Your task to perform on an android device: open device folders in google photos Image 0: 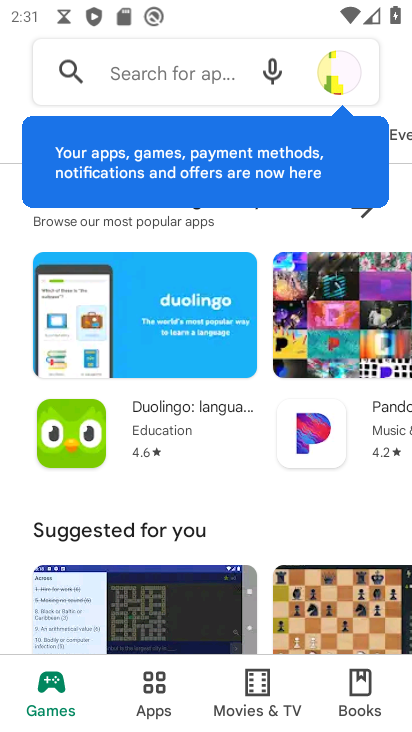
Step 0: press home button
Your task to perform on an android device: open device folders in google photos Image 1: 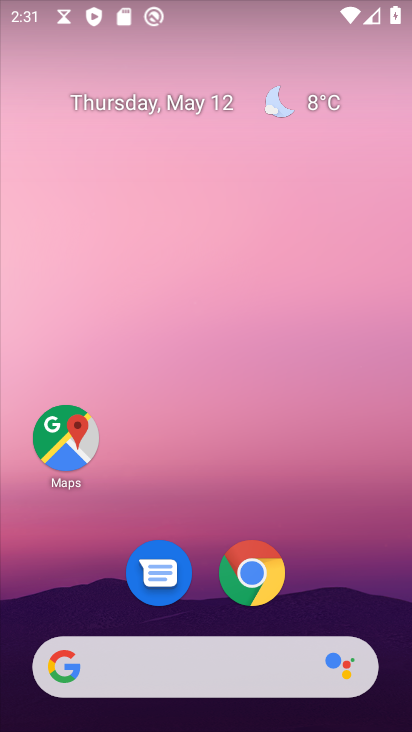
Step 1: drag from (344, 560) to (385, 128)
Your task to perform on an android device: open device folders in google photos Image 2: 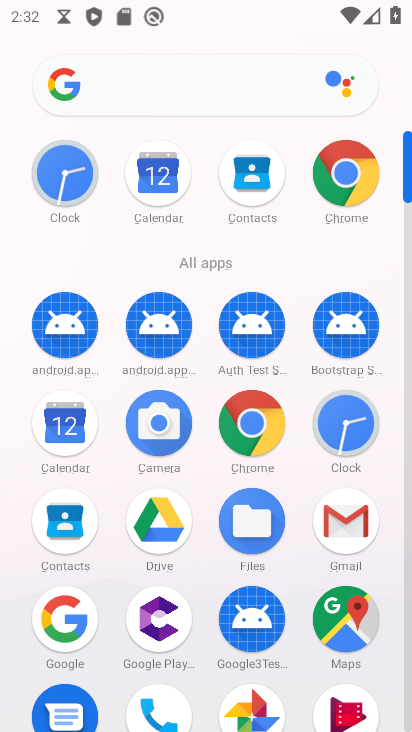
Step 2: drag from (285, 260) to (296, 17)
Your task to perform on an android device: open device folders in google photos Image 3: 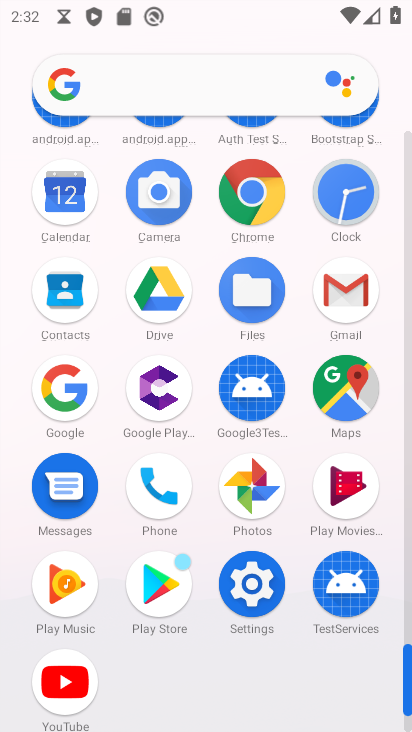
Step 3: click (247, 490)
Your task to perform on an android device: open device folders in google photos Image 4: 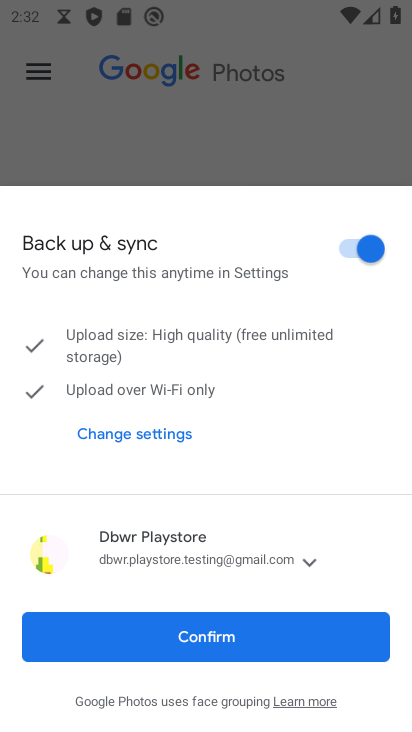
Step 4: click (250, 639)
Your task to perform on an android device: open device folders in google photos Image 5: 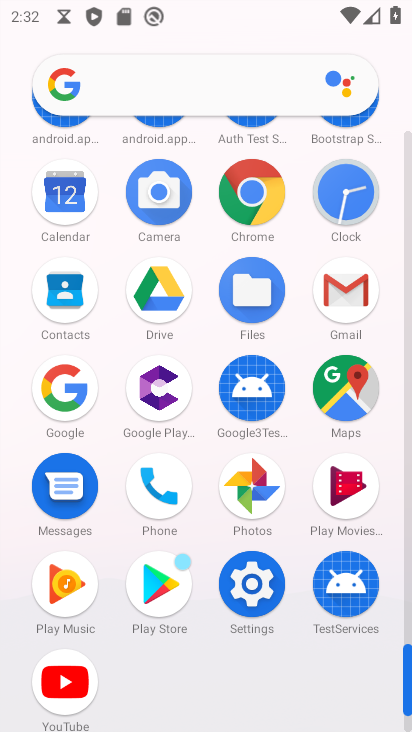
Step 5: click (243, 489)
Your task to perform on an android device: open device folders in google photos Image 6: 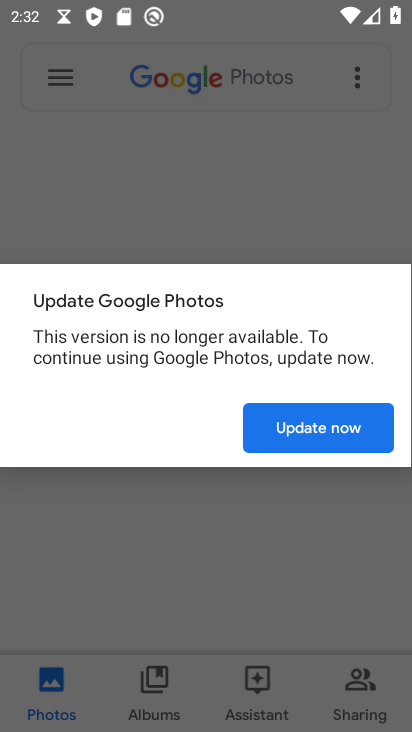
Step 6: click (328, 429)
Your task to perform on an android device: open device folders in google photos Image 7: 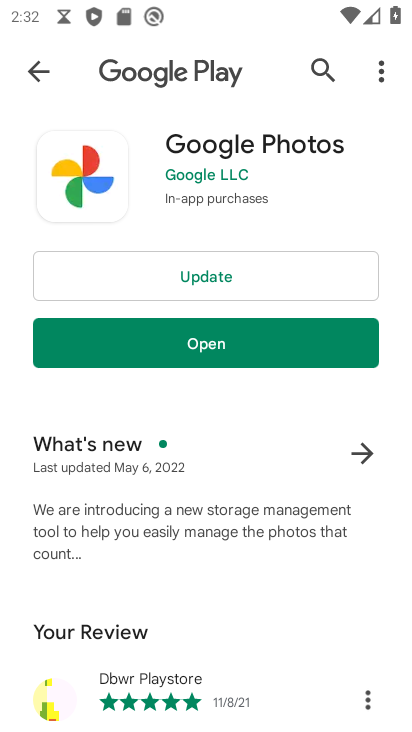
Step 7: click (230, 277)
Your task to perform on an android device: open device folders in google photos Image 8: 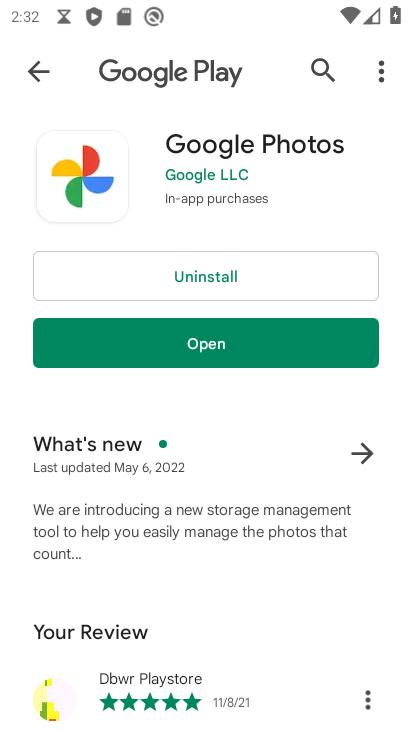
Step 8: click (254, 331)
Your task to perform on an android device: open device folders in google photos Image 9: 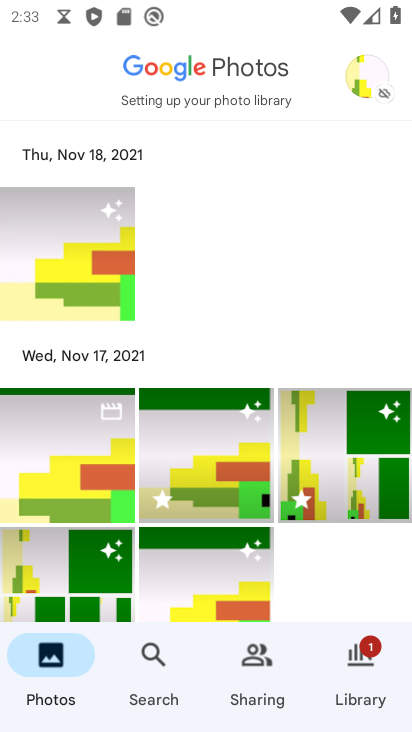
Step 9: click (366, 86)
Your task to perform on an android device: open device folders in google photos Image 10: 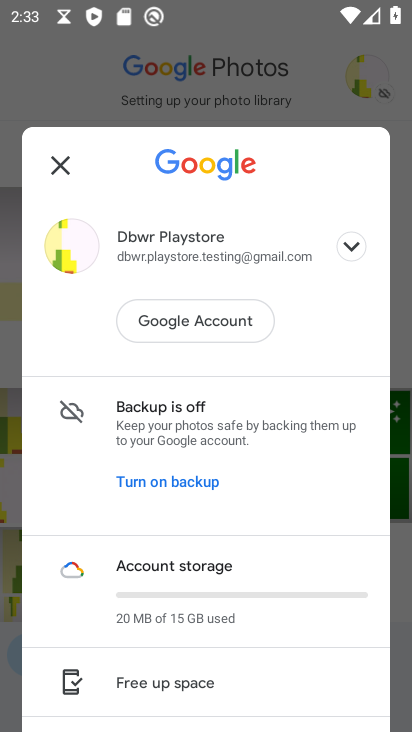
Step 10: click (46, 90)
Your task to perform on an android device: open device folders in google photos Image 11: 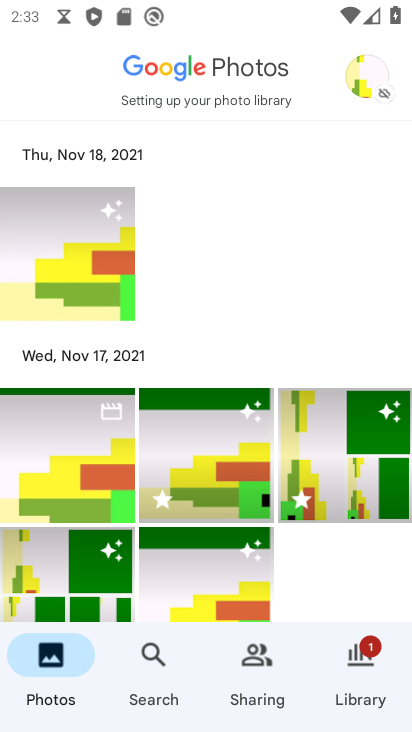
Step 11: click (354, 658)
Your task to perform on an android device: open device folders in google photos Image 12: 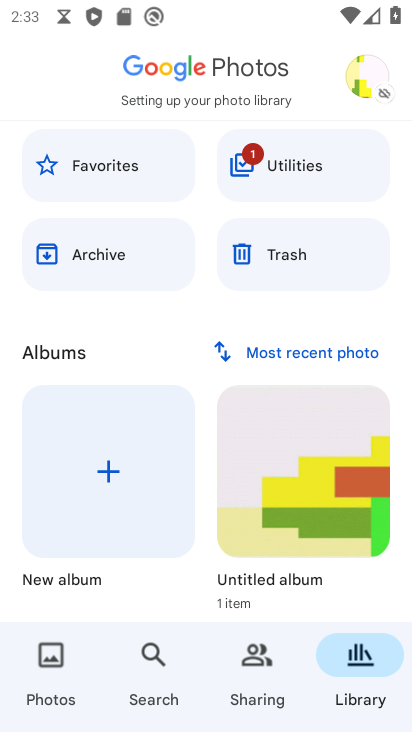
Step 12: drag from (299, 604) to (266, 231)
Your task to perform on an android device: open device folders in google photos Image 13: 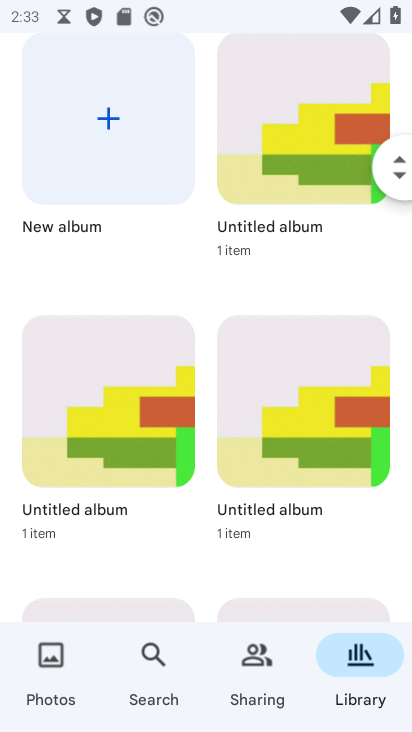
Step 13: drag from (324, 554) to (313, 273)
Your task to perform on an android device: open device folders in google photos Image 14: 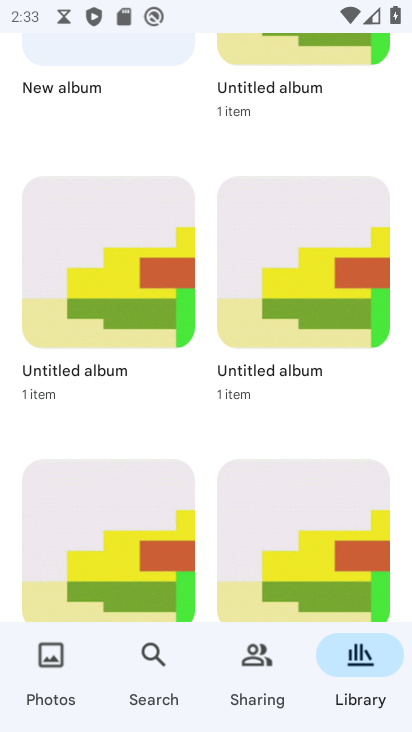
Step 14: drag from (343, 144) to (317, 628)
Your task to perform on an android device: open device folders in google photos Image 15: 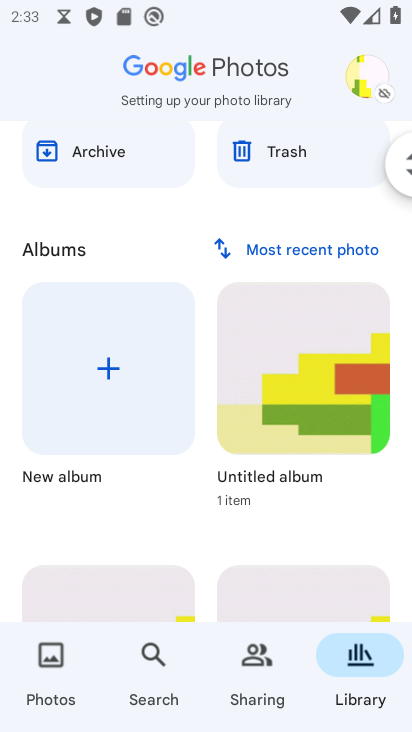
Step 15: click (373, 74)
Your task to perform on an android device: open device folders in google photos Image 16: 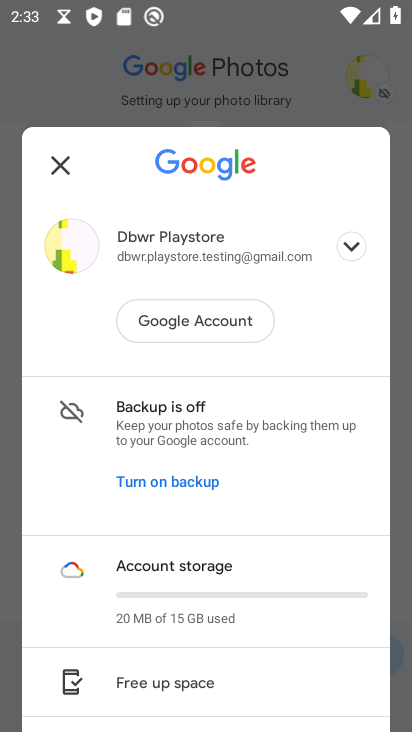
Step 16: drag from (284, 625) to (306, 333)
Your task to perform on an android device: open device folders in google photos Image 17: 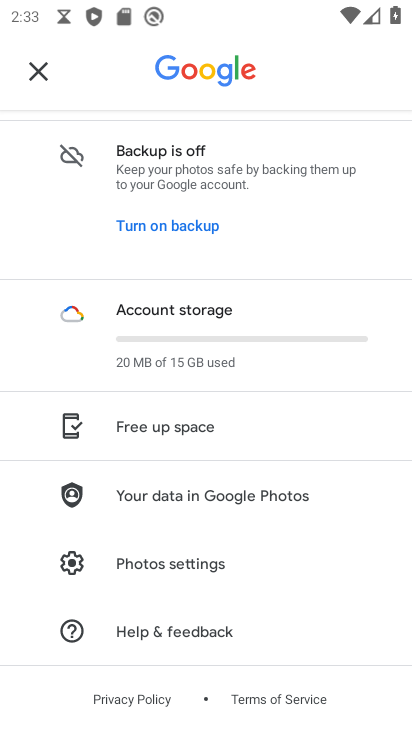
Step 17: click (168, 565)
Your task to perform on an android device: open device folders in google photos Image 18: 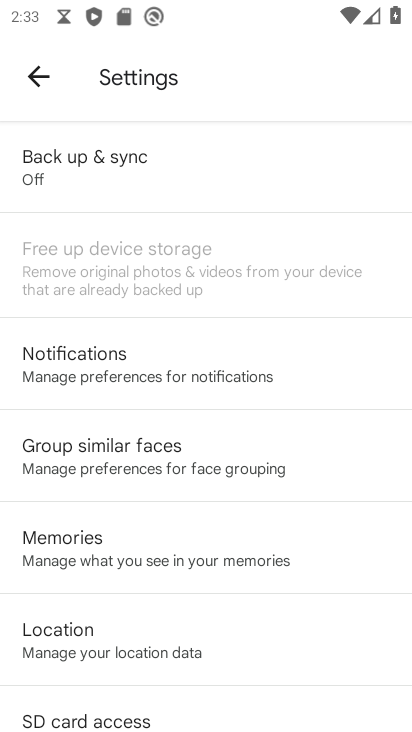
Step 18: drag from (302, 522) to (314, 429)
Your task to perform on an android device: open device folders in google photos Image 19: 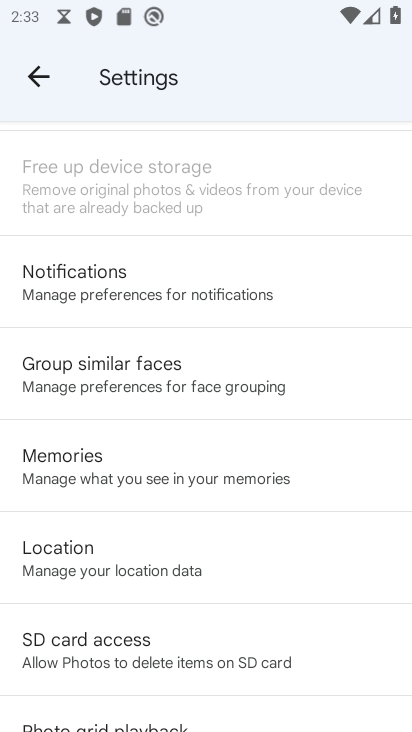
Step 19: drag from (232, 612) to (256, 348)
Your task to perform on an android device: open device folders in google photos Image 20: 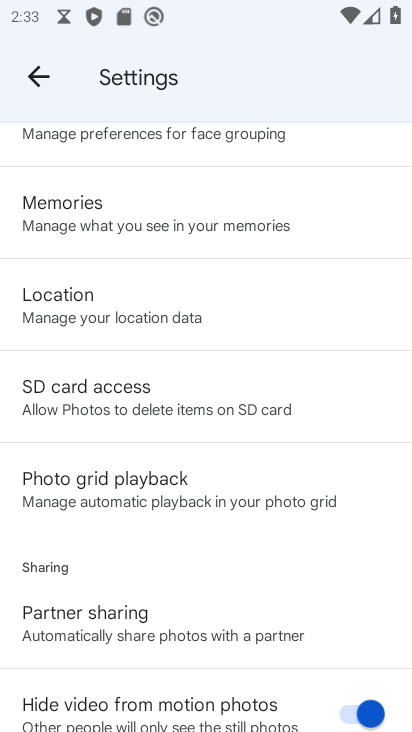
Step 20: drag from (202, 633) to (258, 433)
Your task to perform on an android device: open device folders in google photos Image 21: 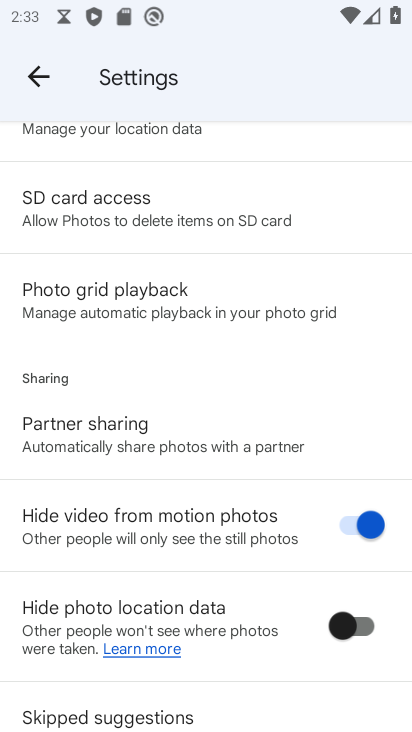
Step 21: drag from (229, 431) to (303, 138)
Your task to perform on an android device: open device folders in google photos Image 22: 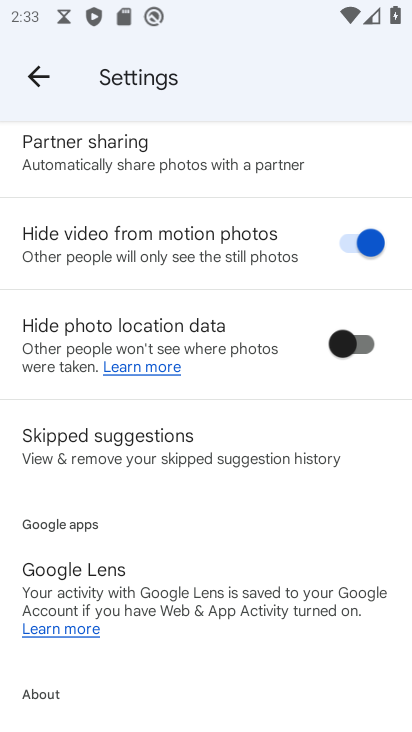
Step 22: drag from (260, 188) to (181, 592)
Your task to perform on an android device: open device folders in google photos Image 23: 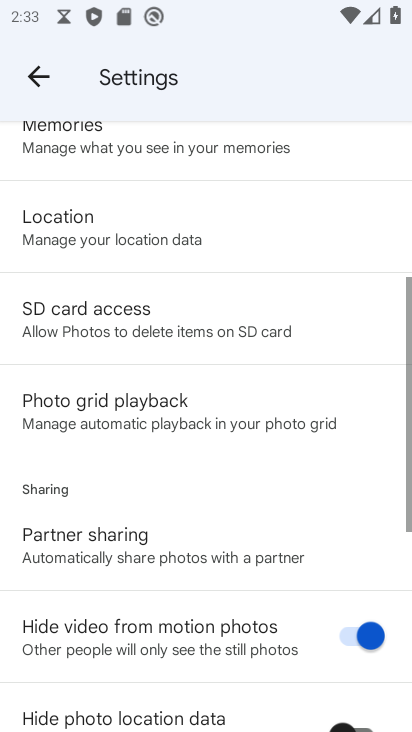
Step 23: drag from (222, 204) to (177, 584)
Your task to perform on an android device: open device folders in google photos Image 24: 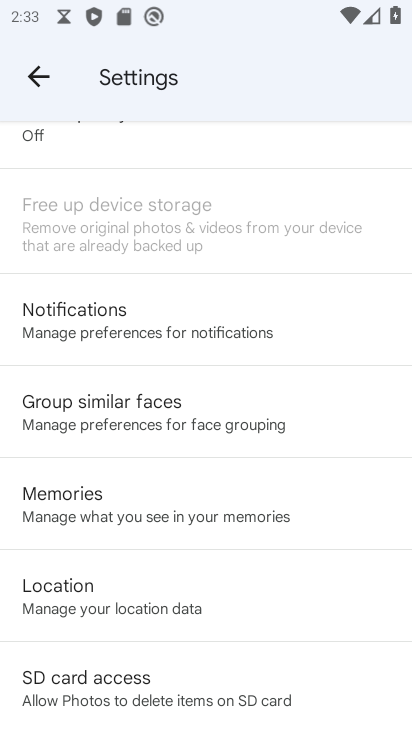
Step 24: drag from (262, 189) to (208, 481)
Your task to perform on an android device: open device folders in google photos Image 25: 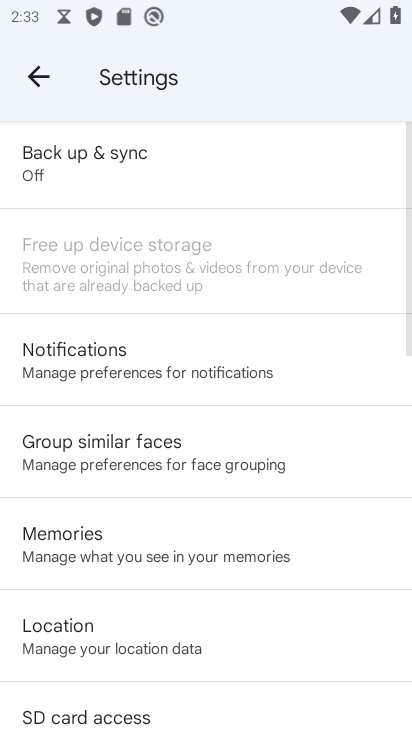
Step 25: click (122, 164)
Your task to perform on an android device: open device folders in google photos Image 26: 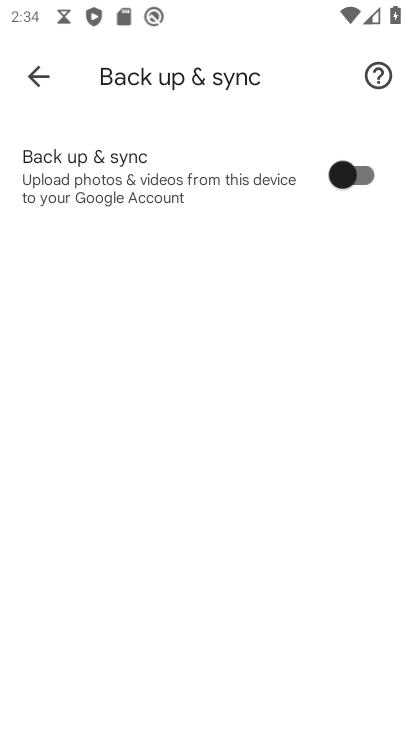
Step 26: click (40, 75)
Your task to perform on an android device: open device folders in google photos Image 27: 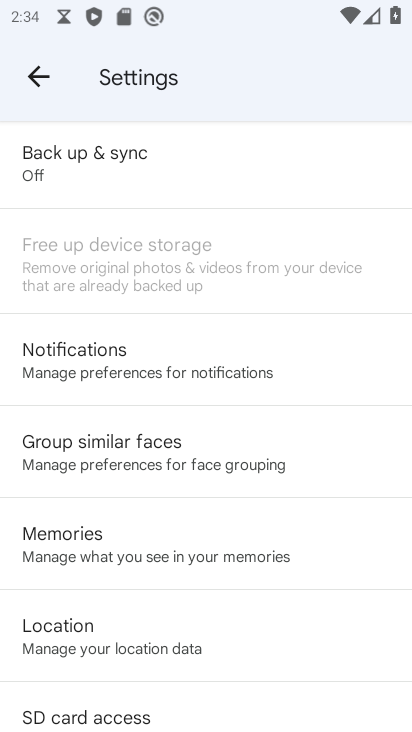
Step 27: click (38, 68)
Your task to perform on an android device: open device folders in google photos Image 28: 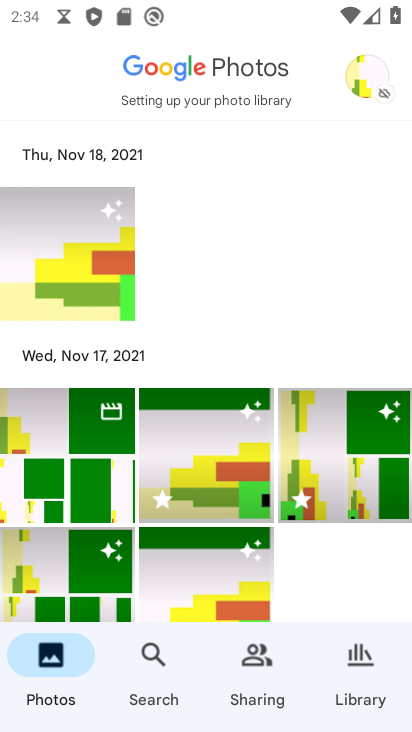
Step 28: task complete